Your task to perform on an android device: Open Google Maps and go to "Timeline" Image 0: 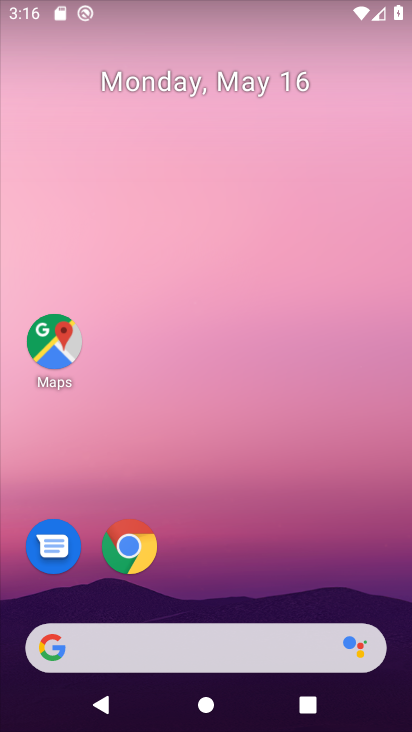
Step 0: drag from (350, 565) to (360, 102)
Your task to perform on an android device: Open Google Maps and go to "Timeline" Image 1: 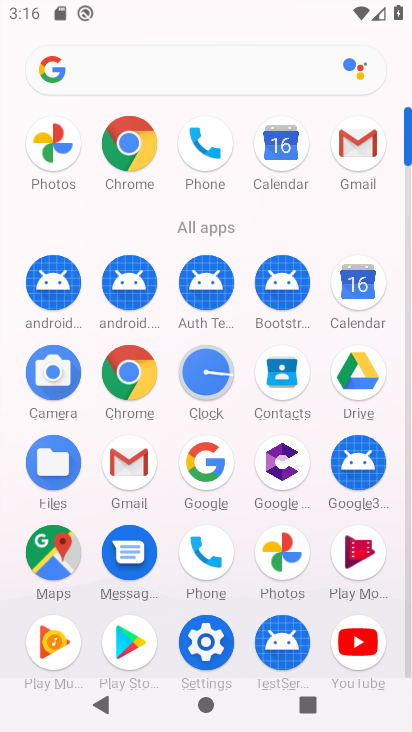
Step 1: click (67, 556)
Your task to perform on an android device: Open Google Maps and go to "Timeline" Image 2: 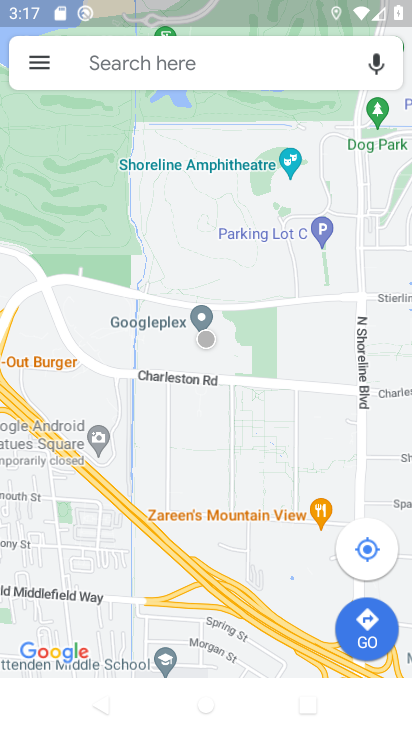
Step 2: click (29, 65)
Your task to perform on an android device: Open Google Maps and go to "Timeline" Image 3: 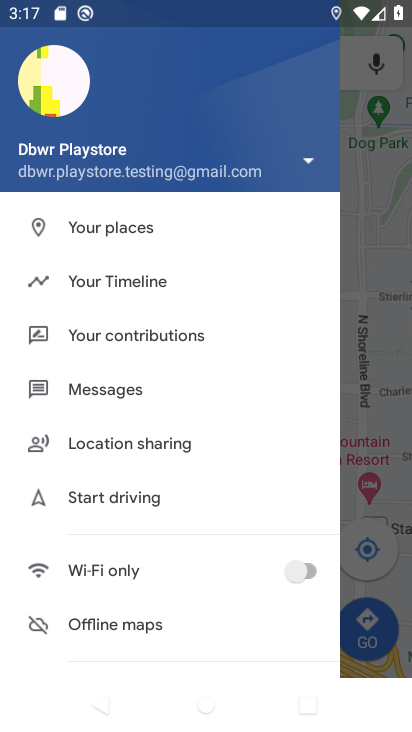
Step 3: click (148, 283)
Your task to perform on an android device: Open Google Maps and go to "Timeline" Image 4: 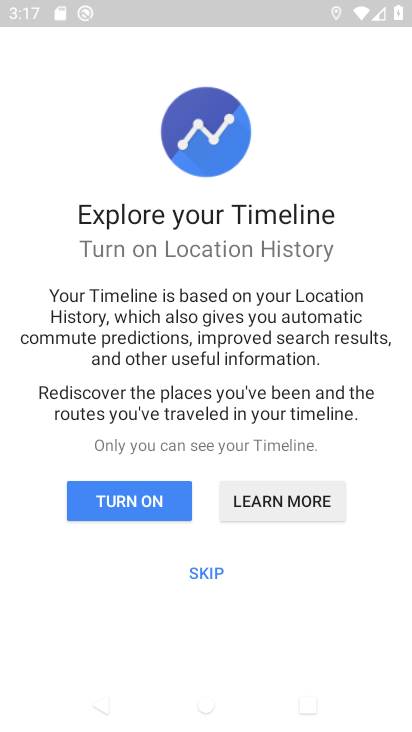
Step 4: task complete